Your task to perform on an android device: delete a single message in the gmail app Image 0: 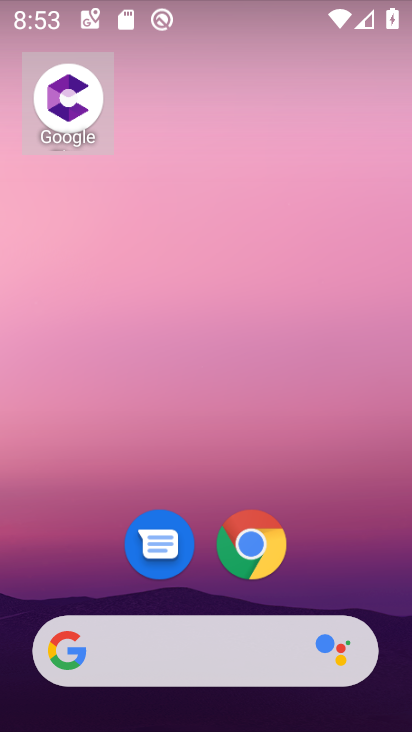
Step 0: drag from (312, 520) to (321, 96)
Your task to perform on an android device: delete a single message in the gmail app Image 1: 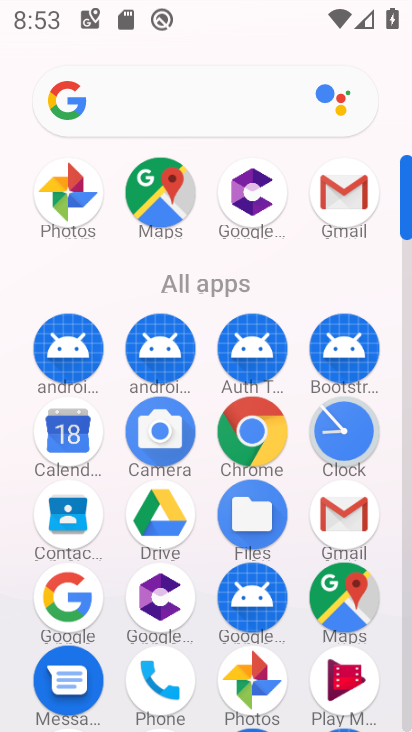
Step 1: click (337, 193)
Your task to perform on an android device: delete a single message in the gmail app Image 2: 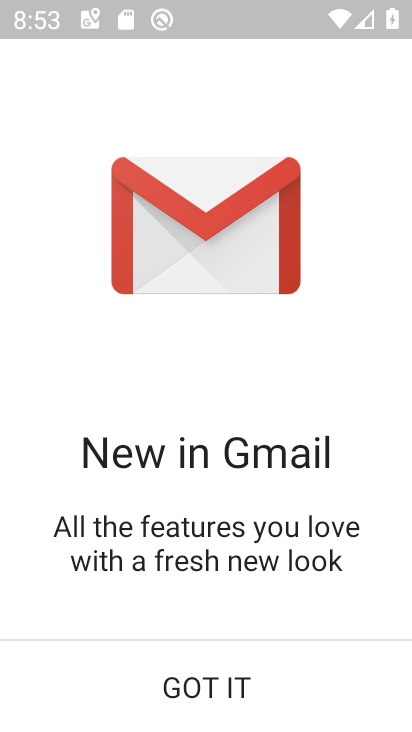
Step 2: click (285, 670)
Your task to perform on an android device: delete a single message in the gmail app Image 3: 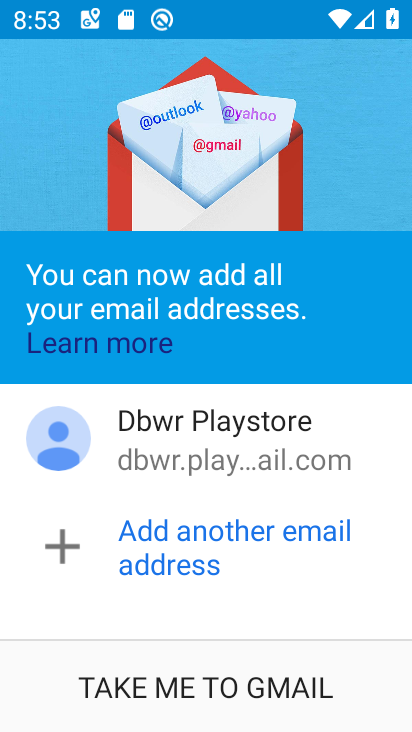
Step 3: click (267, 703)
Your task to perform on an android device: delete a single message in the gmail app Image 4: 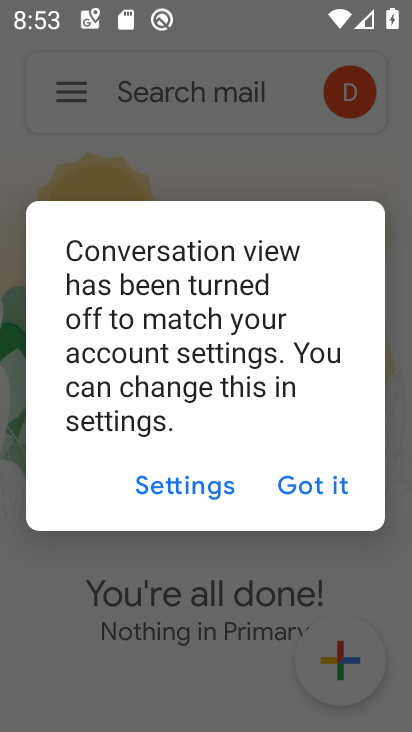
Step 4: click (331, 487)
Your task to perform on an android device: delete a single message in the gmail app Image 5: 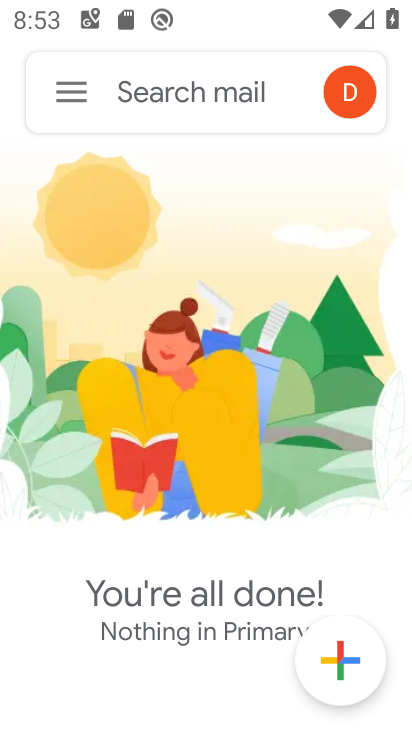
Step 5: click (51, 81)
Your task to perform on an android device: delete a single message in the gmail app Image 6: 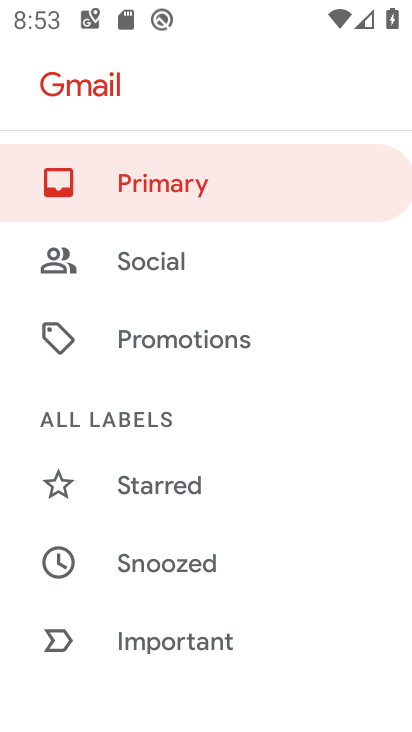
Step 6: drag from (185, 657) to (303, 123)
Your task to perform on an android device: delete a single message in the gmail app Image 7: 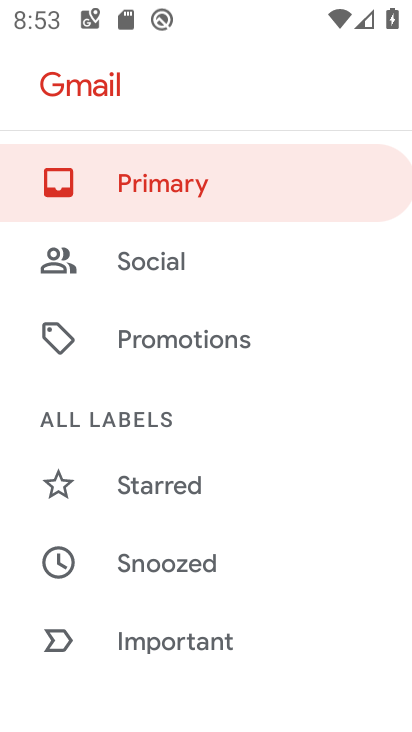
Step 7: drag from (192, 557) to (221, 158)
Your task to perform on an android device: delete a single message in the gmail app Image 8: 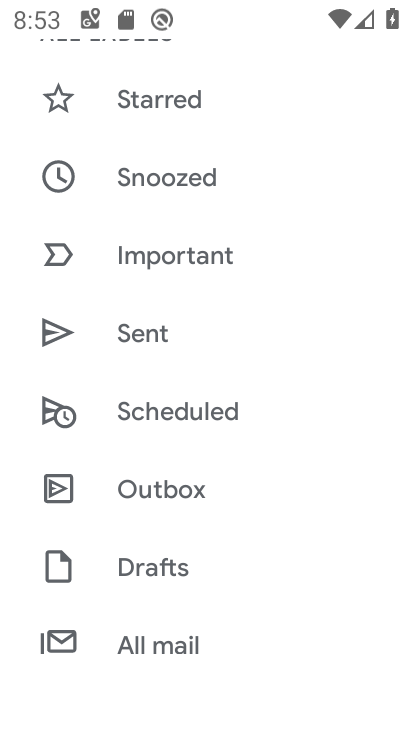
Step 8: drag from (189, 541) to (229, 247)
Your task to perform on an android device: delete a single message in the gmail app Image 9: 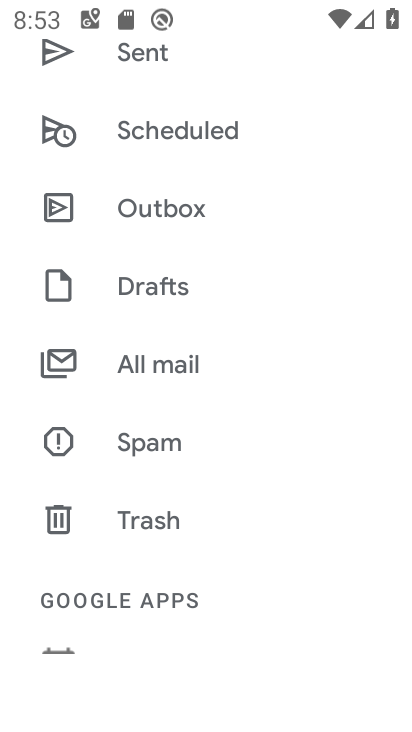
Step 9: click (178, 355)
Your task to perform on an android device: delete a single message in the gmail app Image 10: 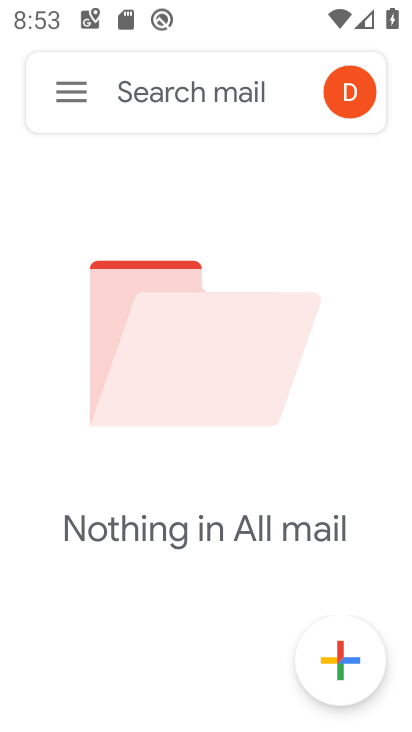
Step 10: task complete